Your task to perform on an android device: see tabs open on other devices in the chrome app Image 0: 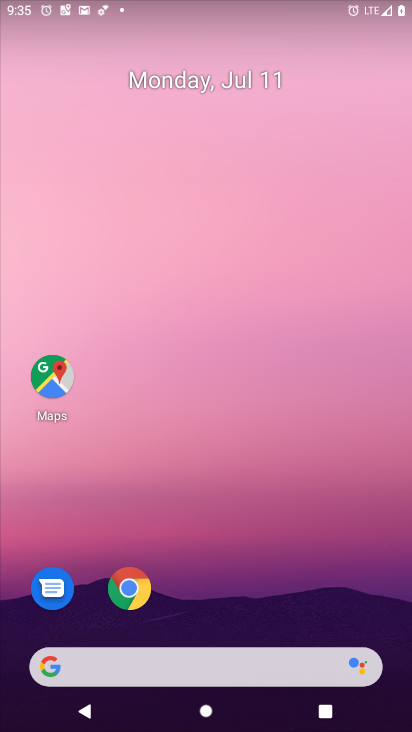
Step 0: click (134, 584)
Your task to perform on an android device: see tabs open on other devices in the chrome app Image 1: 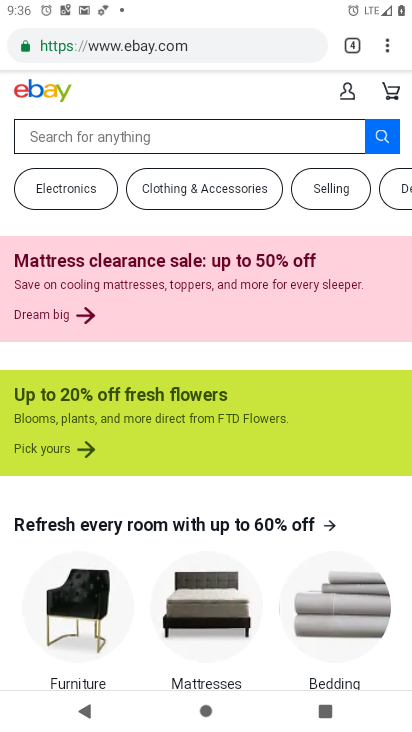
Step 1: task complete